Your task to perform on an android device: add a contact in the contacts app Image 0: 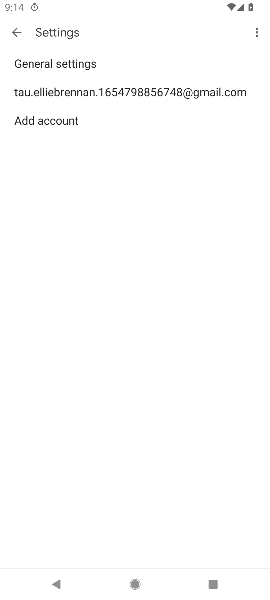
Step 0: press home button
Your task to perform on an android device: add a contact in the contacts app Image 1: 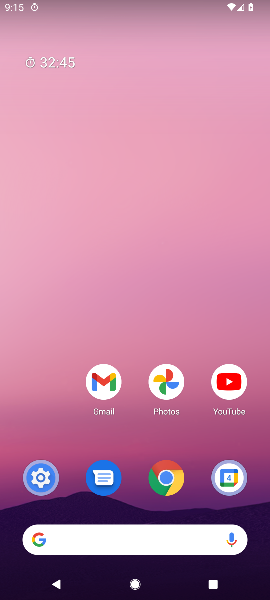
Step 1: press home button
Your task to perform on an android device: add a contact in the contacts app Image 2: 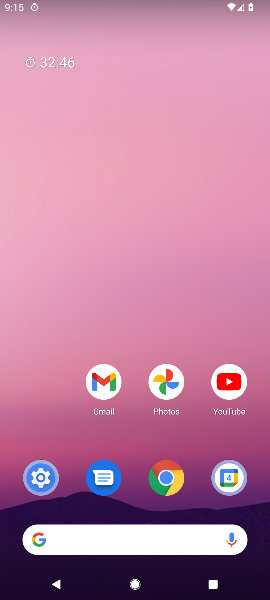
Step 2: drag from (196, 471) to (259, 37)
Your task to perform on an android device: add a contact in the contacts app Image 3: 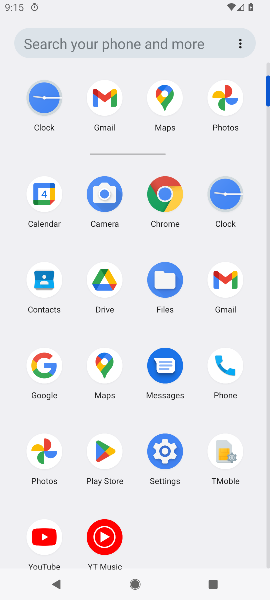
Step 3: click (40, 277)
Your task to perform on an android device: add a contact in the contacts app Image 4: 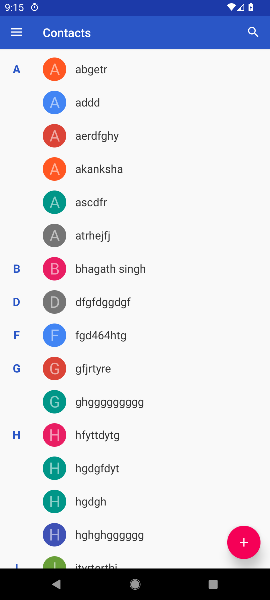
Step 4: click (239, 541)
Your task to perform on an android device: add a contact in the contacts app Image 5: 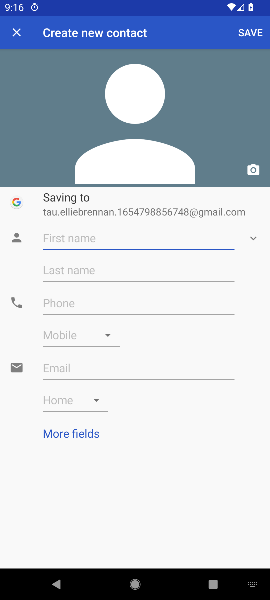
Step 5: type "sghfh"
Your task to perform on an android device: add a contact in the contacts app Image 6: 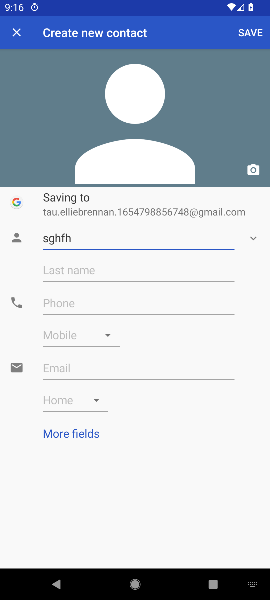
Step 6: click (107, 304)
Your task to perform on an android device: add a contact in the contacts app Image 7: 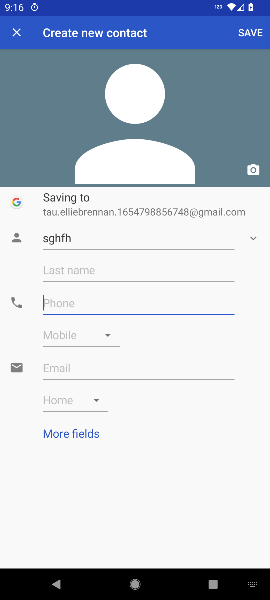
Step 7: type "44563"
Your task to perform on an android device: add a contact in the contacts app Image 8: 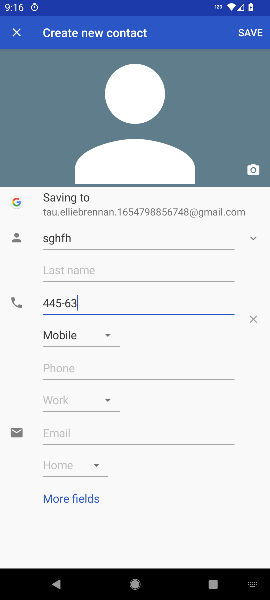
Step 8: click (241, 34)
Your task to perform on an android device: add a contact in the contacts app Image 9: 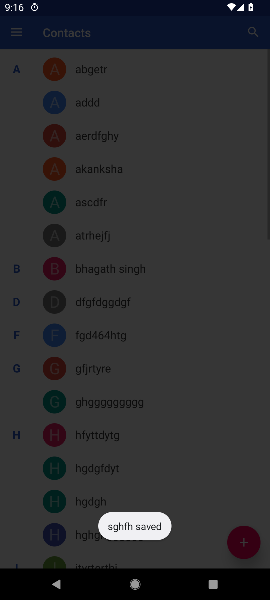
Step 9: task complete